Your task to perform on an android device: Do I have any events tomorrow? Image 0: 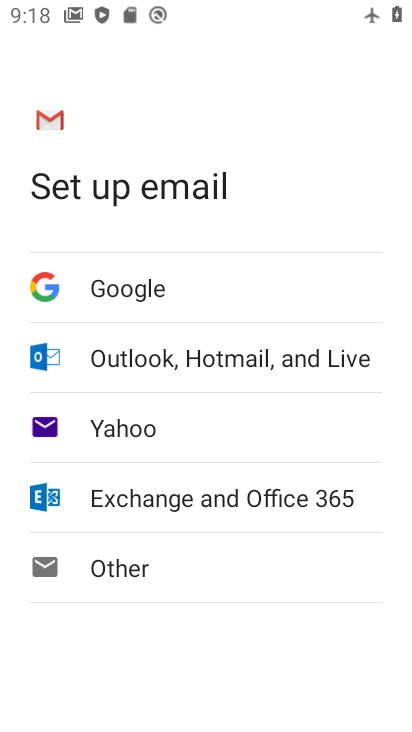
Step 0: press home button
Your task to perform on an android device: Do I have any events tomorrow? Image 1: 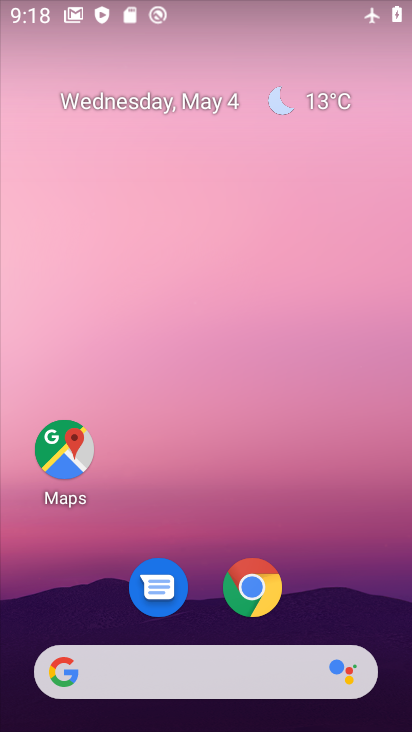
Step 1: drag from (204, 611) to (180, 74)
Your task to perform on an android device: Do I have any events tomorrow? Image 2: 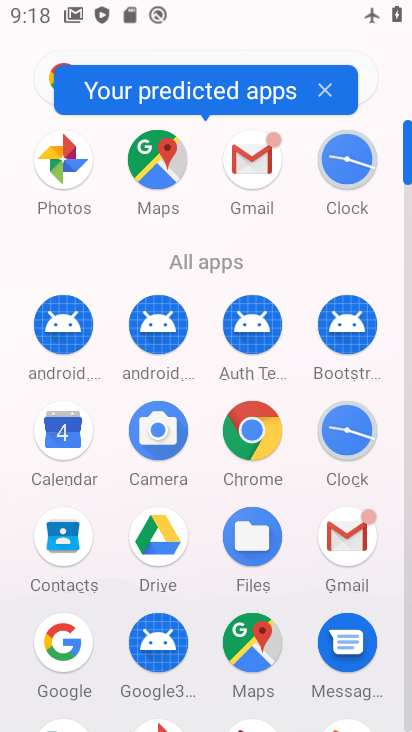
Step 2: click (63, 436)
Your task to perform on an android device: Do I have any events tomorrow? Image 3: 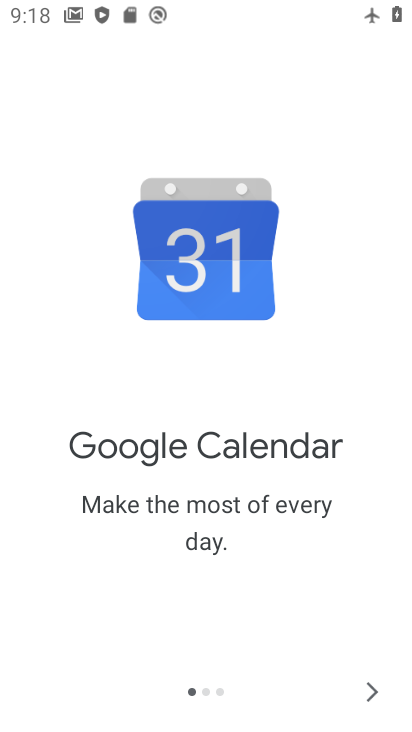
Step 3: click (378, 688)
Your task to perform on an android device: Do I have any events tomorrow? Image 4: 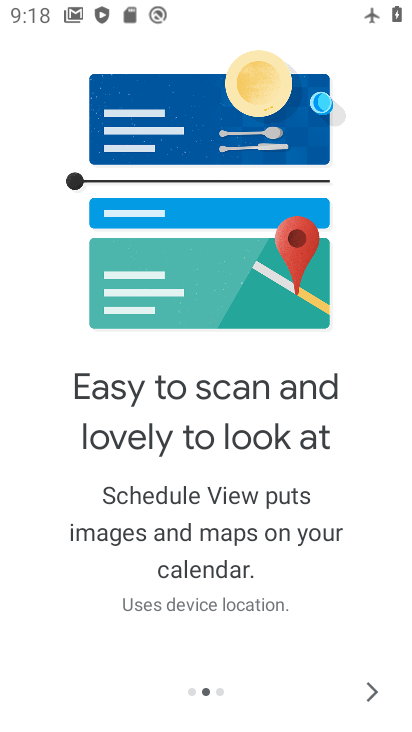
Step 4: click (378, 688)
Your task to perform on an android device: Do I have any events tomorrow? Image 5: 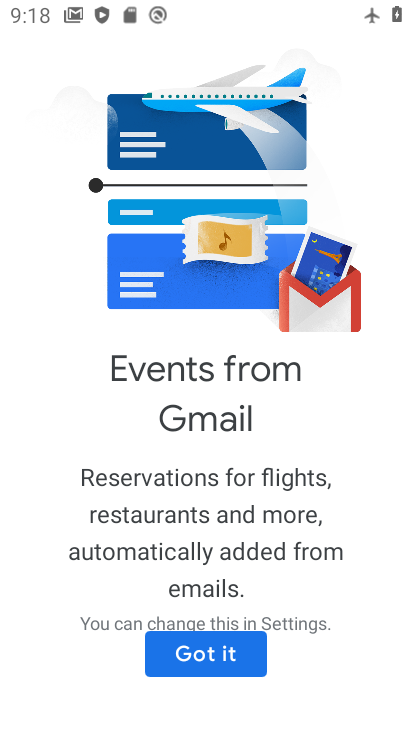
Step 5: click (378, 688)
Your task to perform on an android device: Do I have any events tomorrow? Image 6: 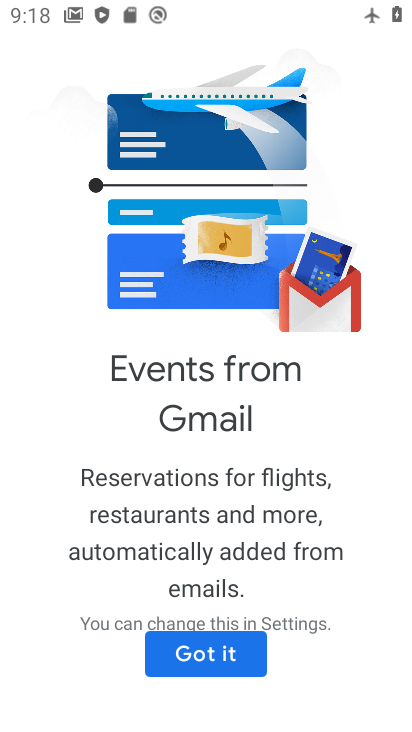
Step 6: click (202, 662)
Your task to perform on an android device: Do I have any events tomorrow? Image 7: 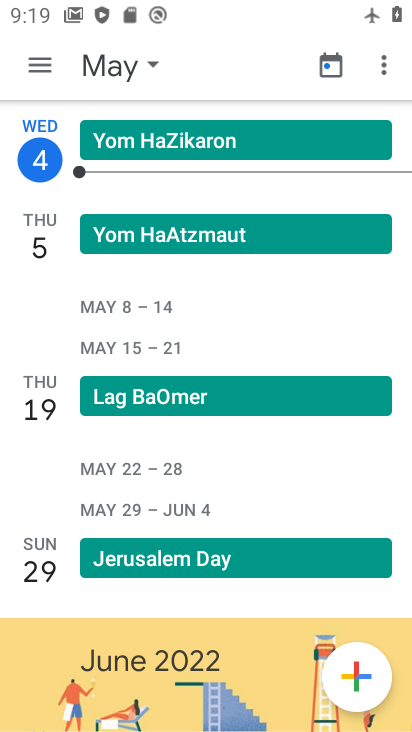
Step 7: click (139, 65)
Your task to perform on an android device: Do I have any events tomorrow? Image 8: 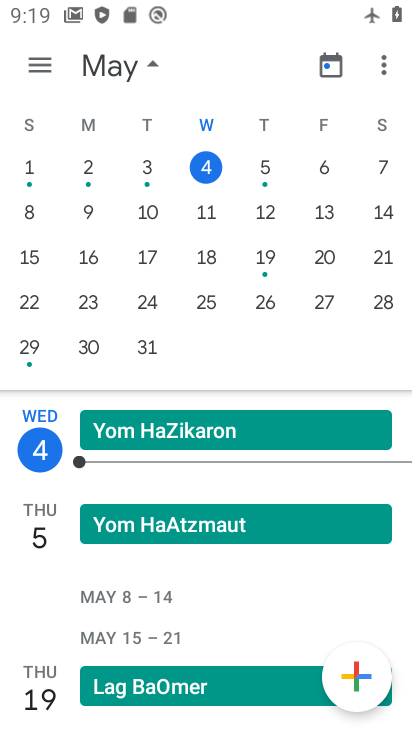
Step 8: click (261, 160)
Your task to perform on an android device: Do I have any events tomorrow? Image 9: 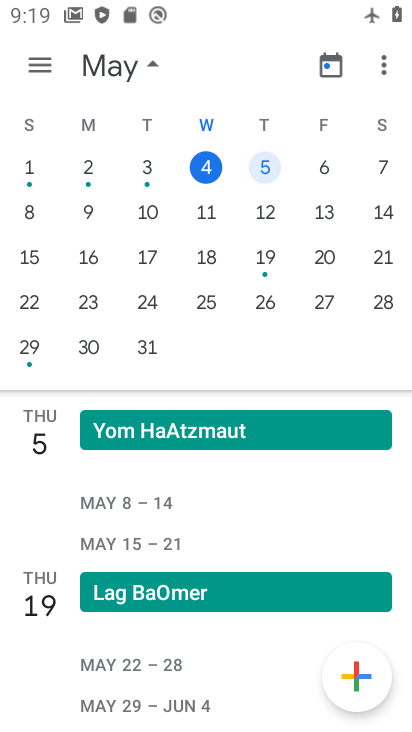
Step 9: task complete